Your task to perform on an android device: allow cookies in the chrome app Image 0: 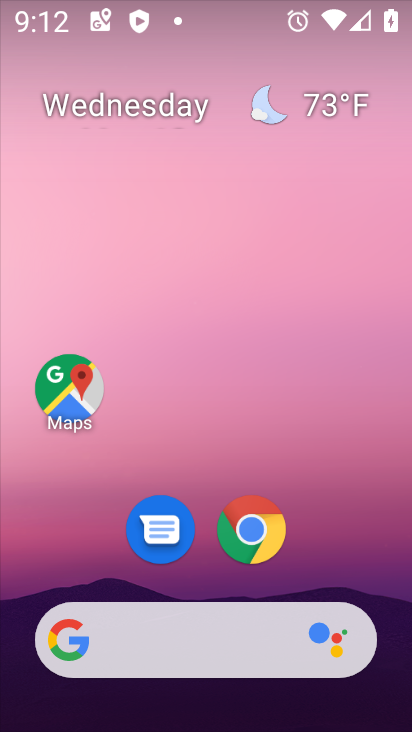
Step 0: drag from (374, 573) to (344, 203)
Your task to perform on an android device: allow cookies in the chrome app Image 1: 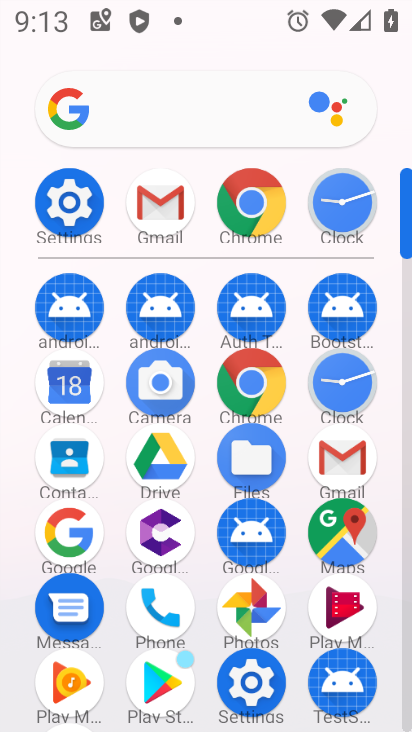
Step 1: click (252, 379)
Your task to perform on an android device: allow cookies in the chrome app Image 2: 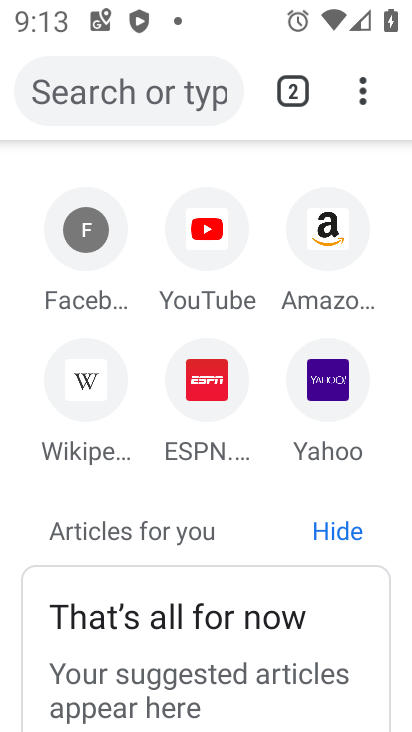
Step 2: click (359, 89)
Your task to perform on an android device: allow cookies in the chrome app Image 3: 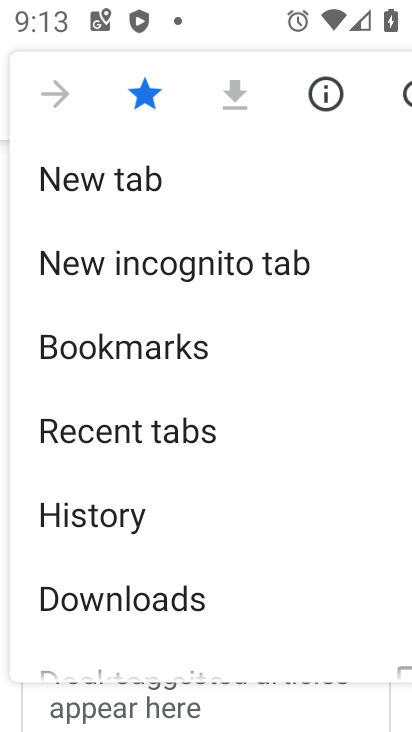
Step 3: drag from (316, 588) to (320, 471)
Your task to perform on an android device: allow cookies in the chrome app Image 4: 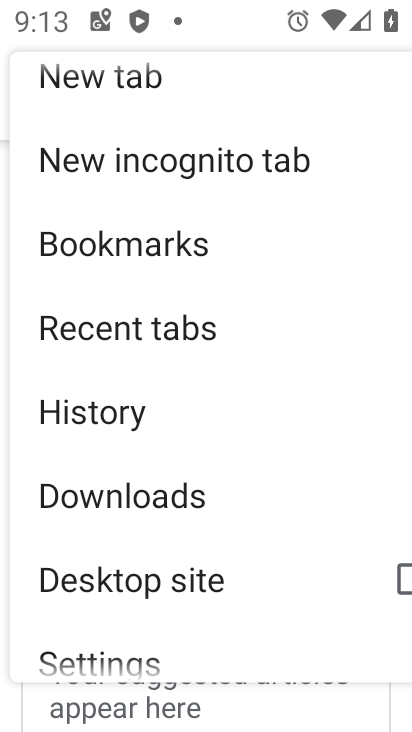
Step 4: drag from (313, 610) to (311, 499)
Your task to perform on an android device: allow cookies in the chrome app Image 5: 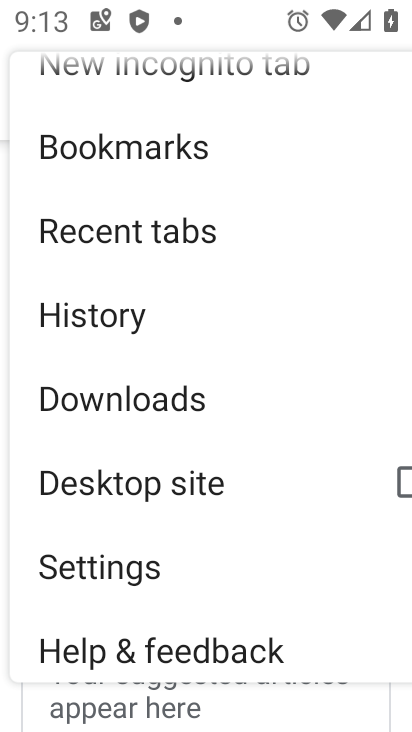
Step 5: drag from (303, 616) to (303, 510)
Your task to perform on an android device: allow cookies in the chrome app Image 6: 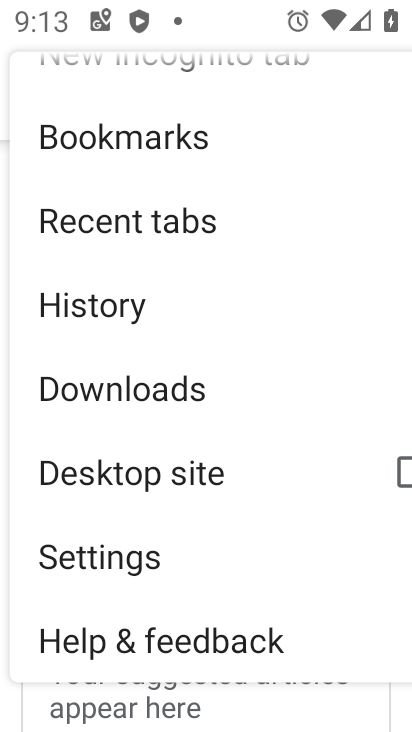
Step 6: drag from (318, 626) to (306, 517)
Your task to perform on an android device: allow cookies in the chrome app Image 7: 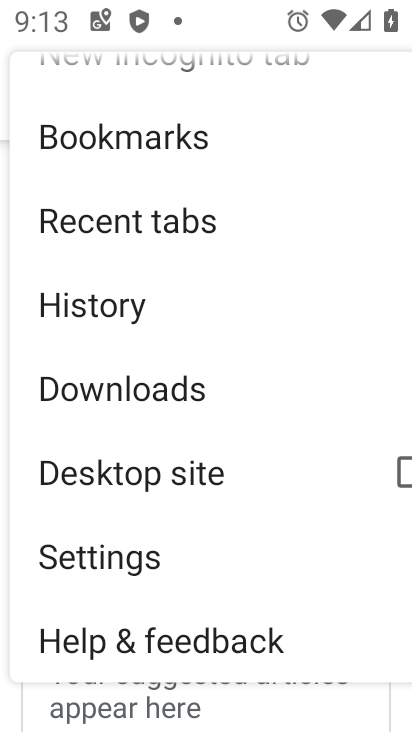
Step 7: drag from (308, 400) to (317, 532)
Your task to perform on an android device: allow cookies in the chrome app Image 8: 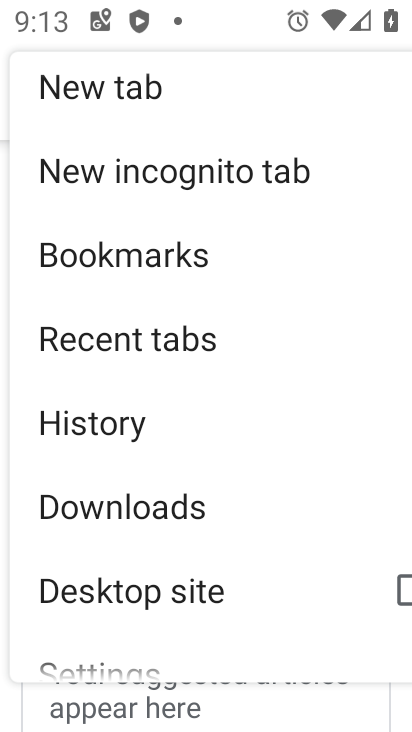
Step 8: drag from (299, 304) to (320, 475)
Your task to perform on an android device: allow cookies in the chrome app Image 9: 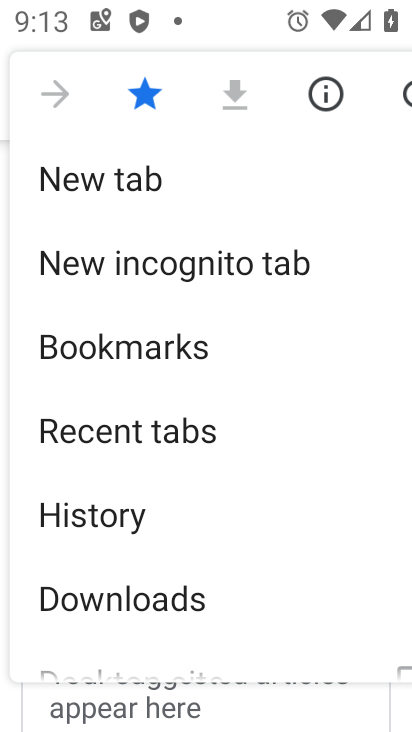
Step 9: drag from (331, 317) to (339, 462)
Your task to perform on an android device: allow cookies in the chrome app Image 10: 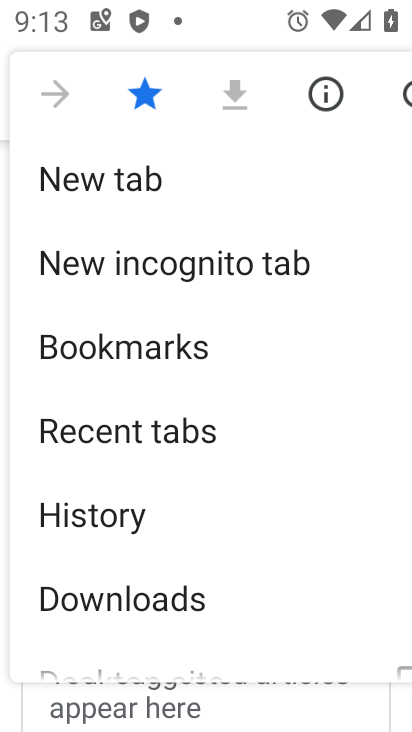
Step 10: drag from (316, 576) to (311, 417)
Your task to perform on an android device: allow cookies in the chrome app Image 11: 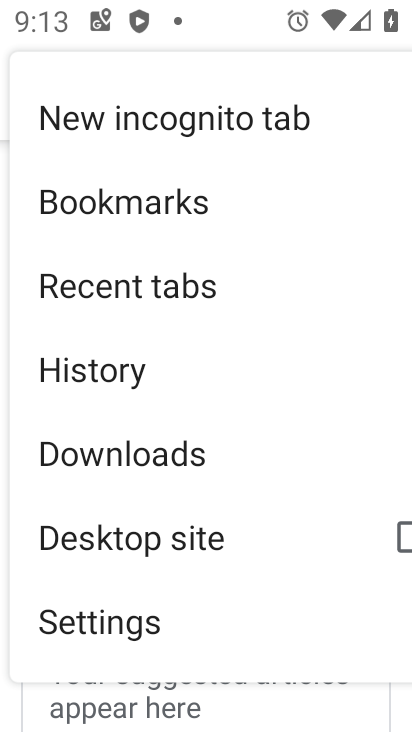
Step 11: drag from (308, 628) to (299, 471)
Your task to perform on an android device: allow cookies in the chrome app Image 12: 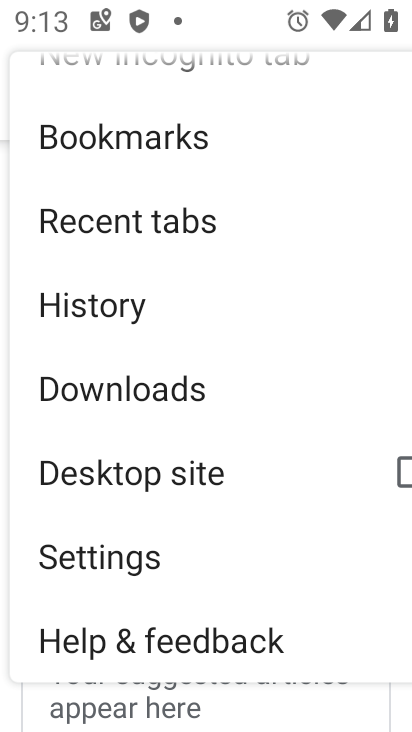
Step 12: click (132, 584)
Your task to perform on an android device: allow cookies in the chrome app Image 13: 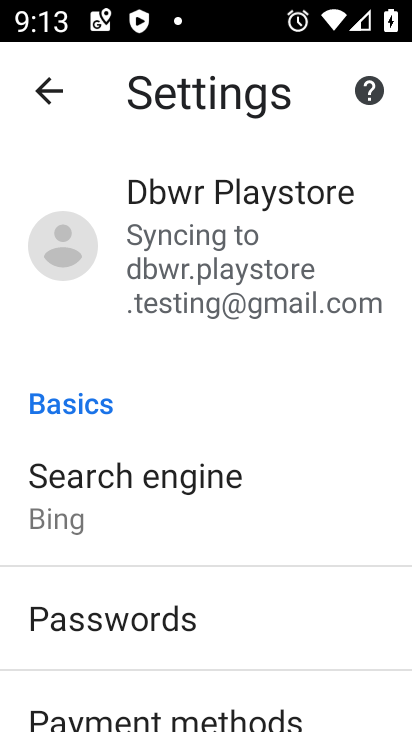
Step 13: drag from (307, 664) to (300, 487)
Your task to perform on an android device: allow cookies in the chrome app Image 14: 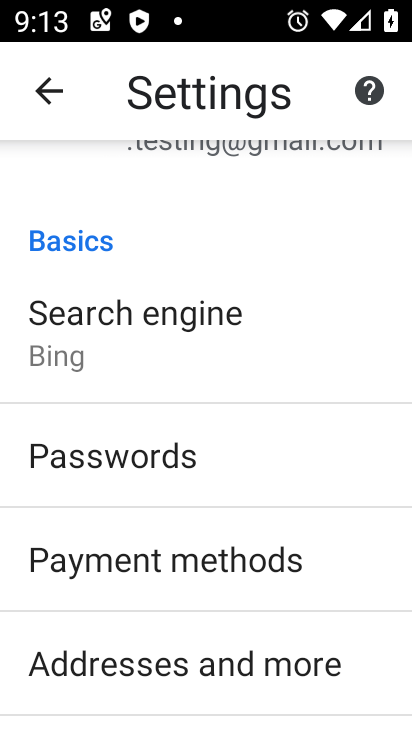
Step 14: drag from (346, 699) to (329, 506)
Your task to perform on an android device: allow cookies in the chrome app Image 15: 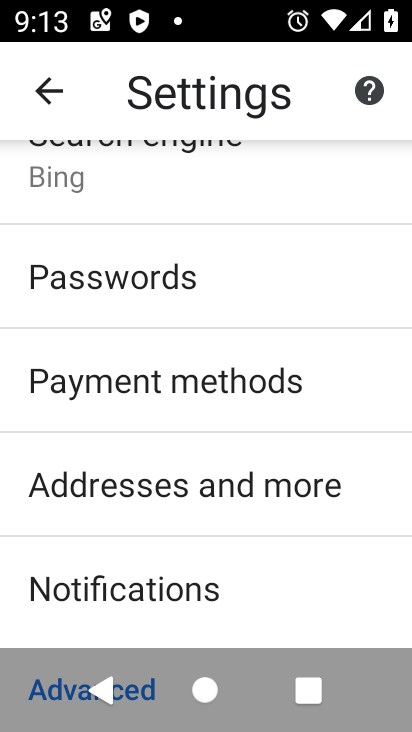
Step 15: drag from (342, 623) to (336, 485)
Your task to perform on an android device: allow cookies in the chrome app Image 16: 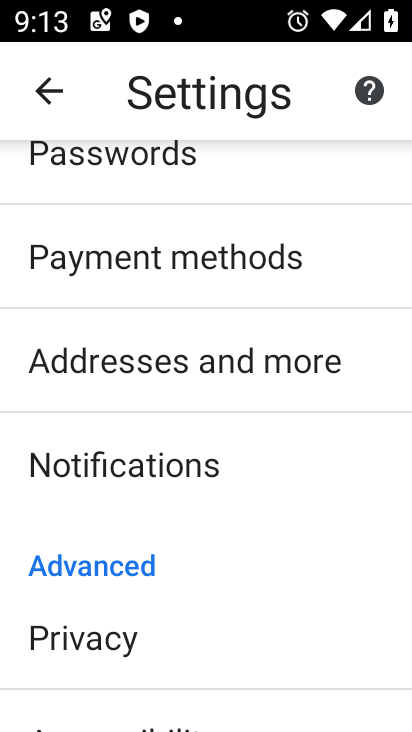
Step 16: drag from (338, 686) to (343, 494)
Your task to perform on an android device: allow cookies in the chrome app Image 17: 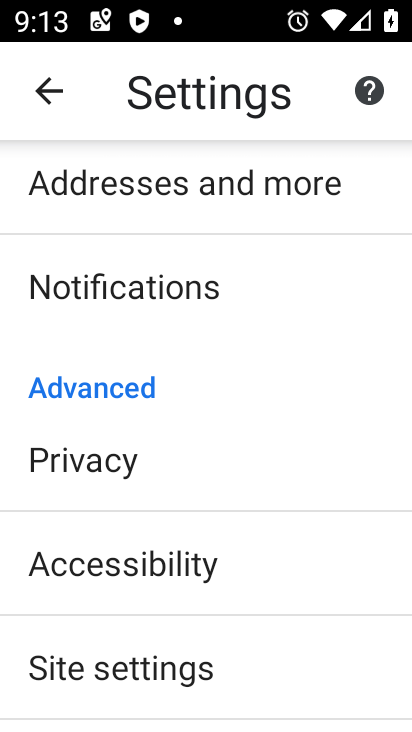
Step 17: drag from (334, 684) to (343, 548)
Your task to perform on an android device: allow cookies in the chrome app Image 18: 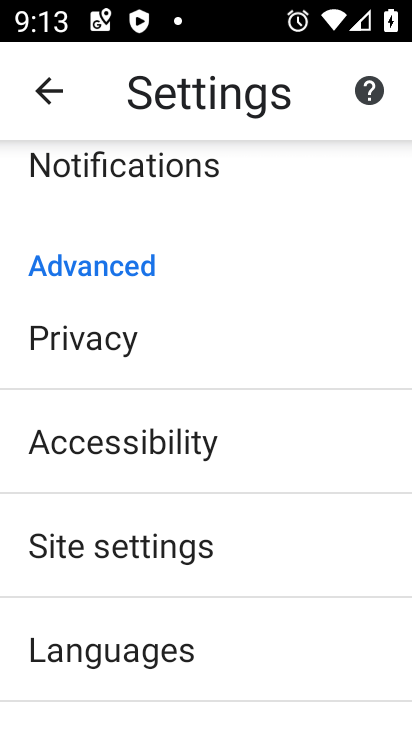
Step 18: drag from (329, 684) to (323, 529)
Your task to perform on an android device: allow cookies in the chrome app Image 19: 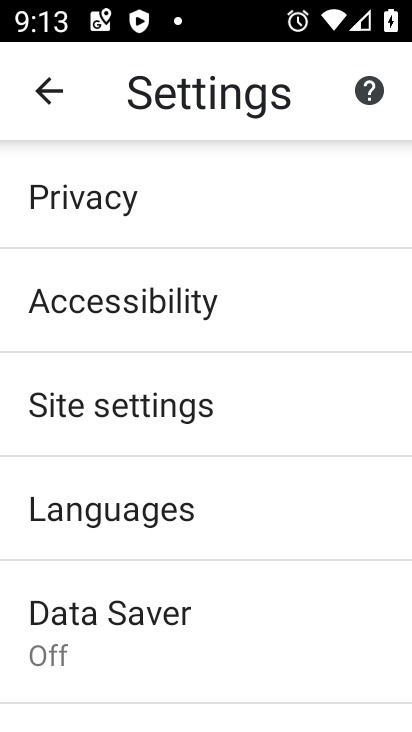
Step 19: drag from (323, 661) to (304, 556)
Your task to perform on an android device: allow cookies in the chrome app Image 20: 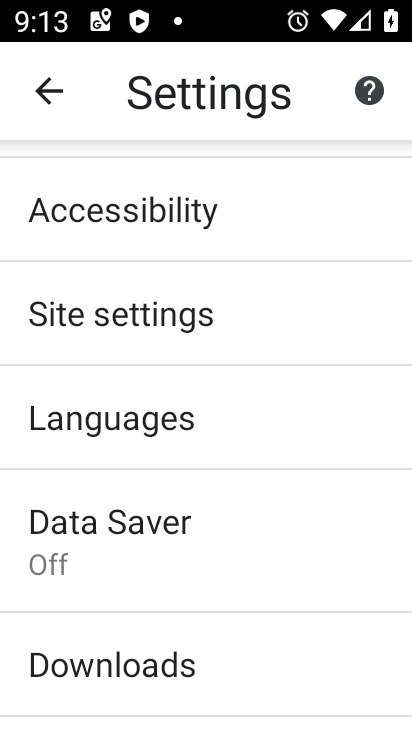
Step 20: drag from (286, 404) to (306, 555)
Your task to perform on an android device: allow cookies in the chrome app Image 21: 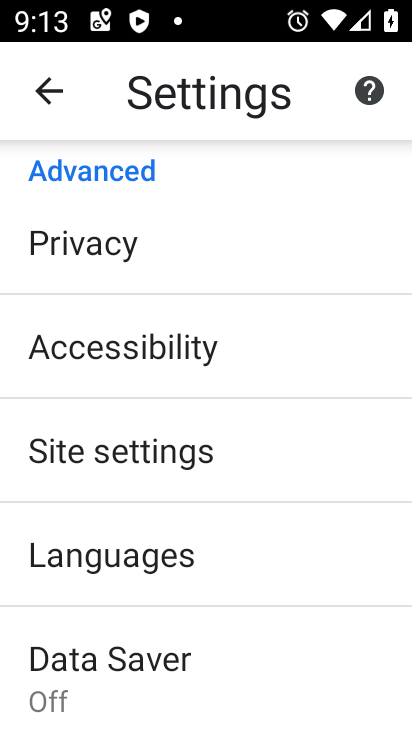
Step 21: drag from (285, 407) to (299, 543)
Your task to perform on an android device: allow cookies in the chrome app Image 22: 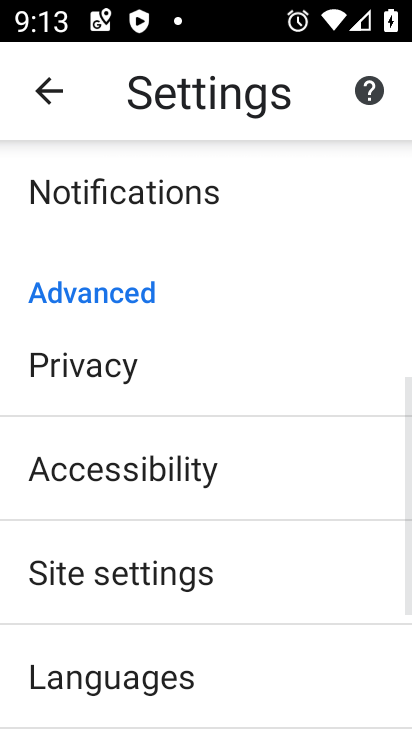
Step 22: drag from (284, 377) to (288, 507)
Your task to perform on an android device: allow cookies in the chrome app Image 23: 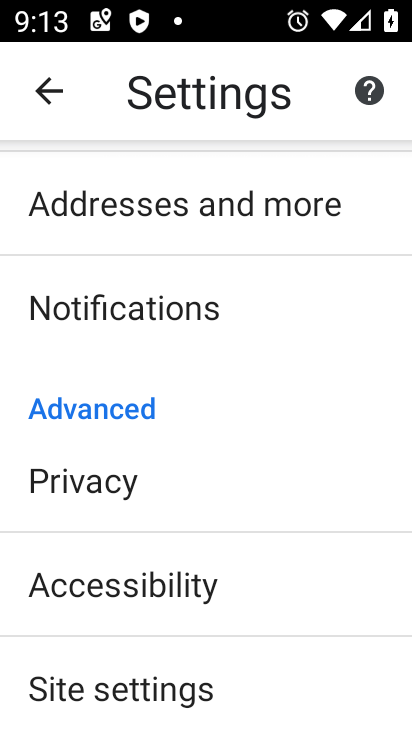
Step 23: drag from (296, 628) to (291, 472)
Your task to perform on an android device: allow cookies in the chrome app Image 24: 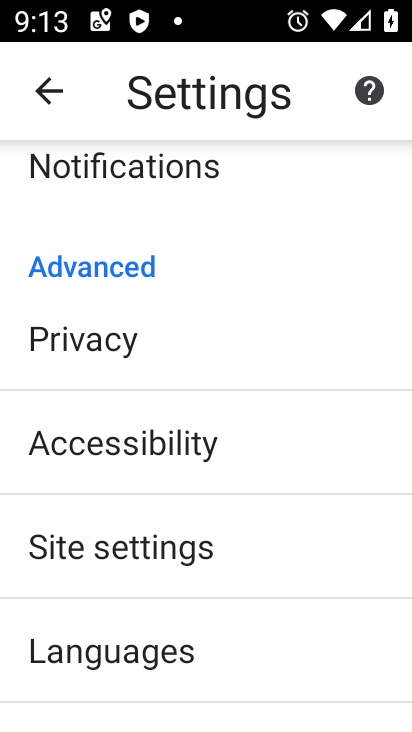
Step 24: click (247, 566)
Your task to perform on an android device: allow cookies in the chrome app Image 25: 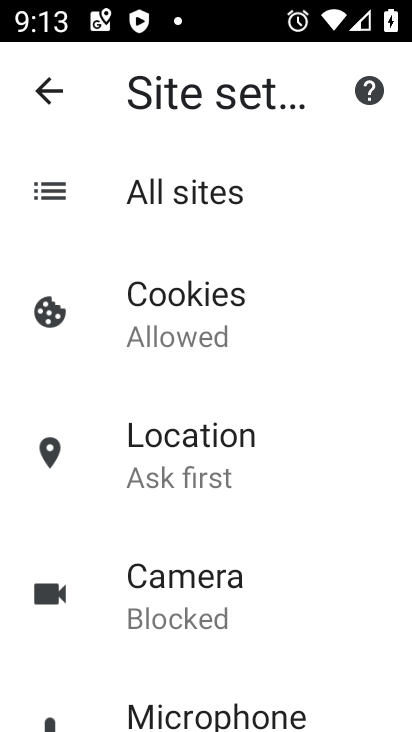
Step 25: drag from (325, 652) to (311, 518)
Your task to perform on an android device: allow cookies in the chrome app Image 26: 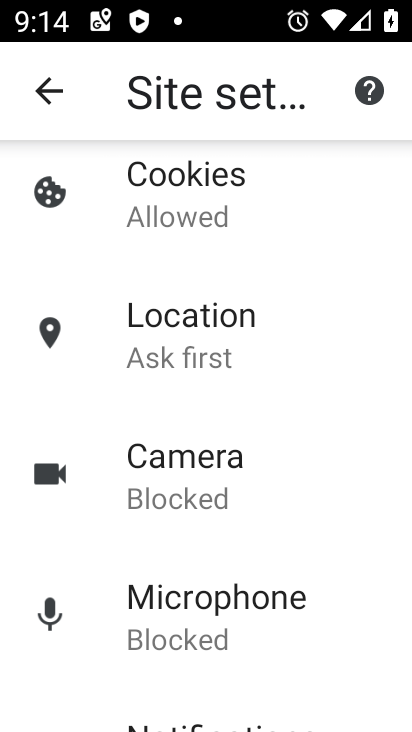
Step 26: drag from (330, 672) to (337, 527)
Your task to perform on an android device: allow cookies in the chrome app Image 27: 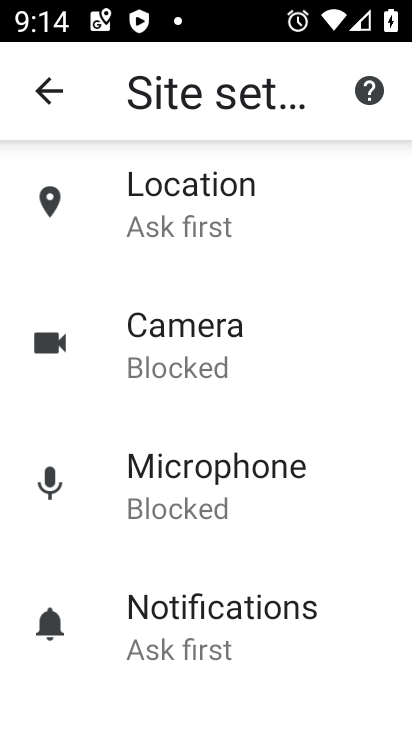
Step 27: drag from (363, 679) to (346, 560)
Your task to perform on an android device: allow cookies in the chrome app Image 28: 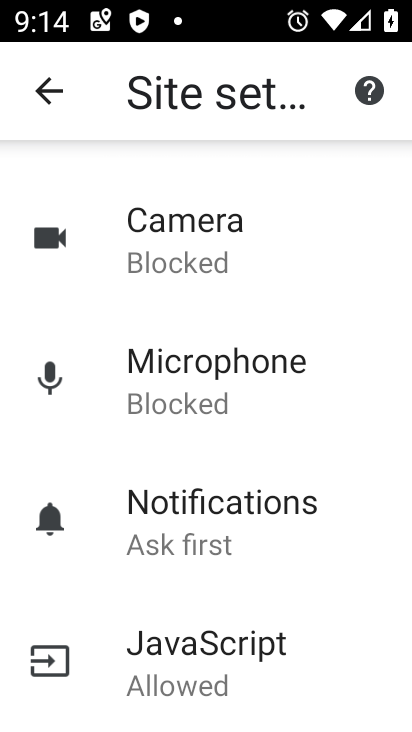
Step 28: drag from (356, 683) to (338, 565)
Your task to perform on an android device: allow cookies in the chrome app Image 29: 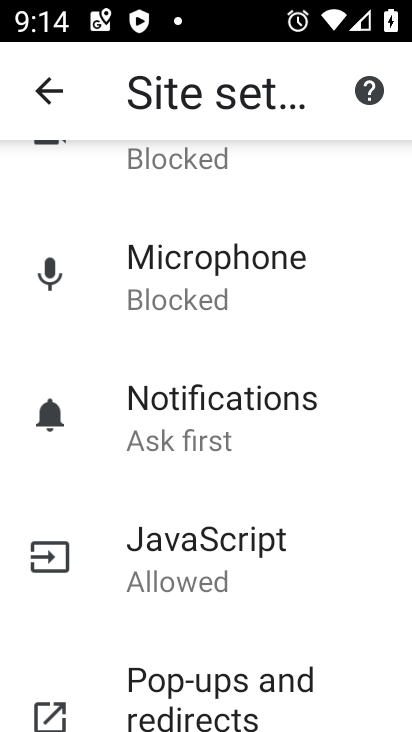
Step 29: drag from (357, 669) to (357, 584)
Your task to perform on an android device: allow cookies in the chrome app Image 30: 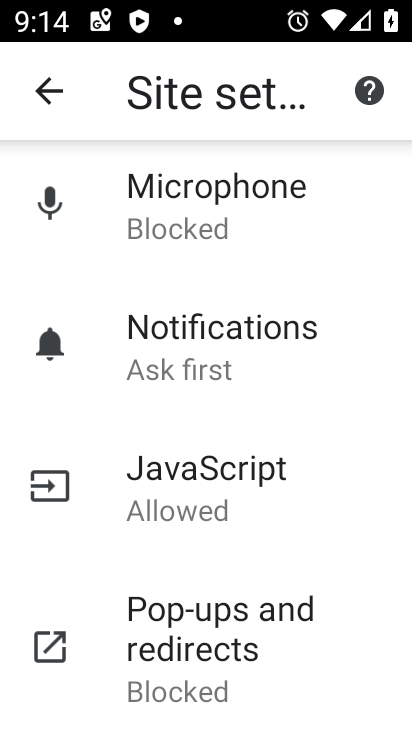
Step 30: drag from (371, 658) to (371, 532)
Your task to perform on an android device: allow cookies in the chrome app Image 31: 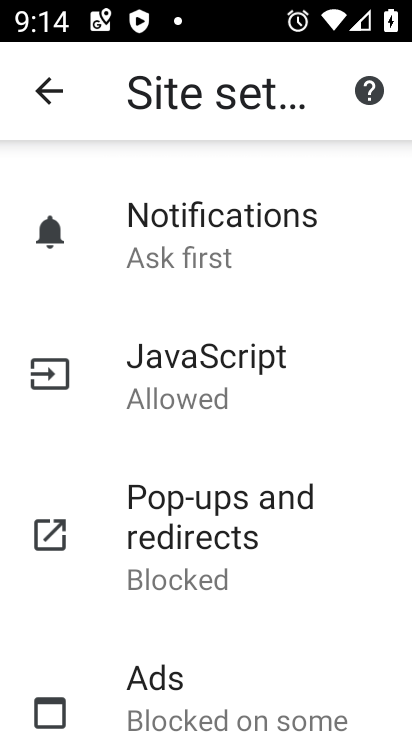
Step 31: drag from (347, 655) to (339, 544)
Your task to perform on an android device: allow cookies in the chrome app Image 32: 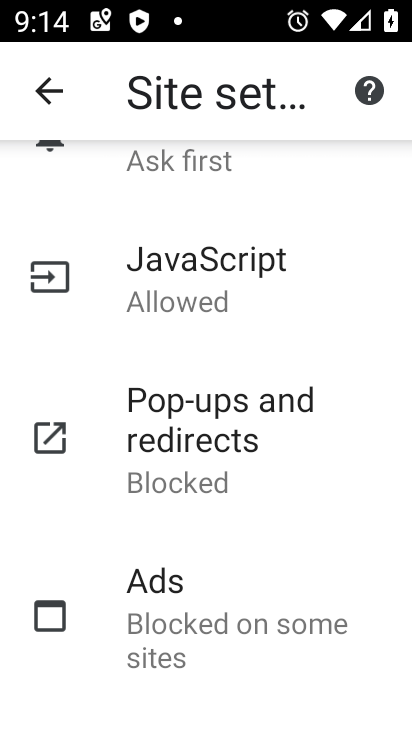
Step 32: drag from (348, 420) to (361, 604)
Your task to perform on an android device: allow cookies in the chrome app Image 33: 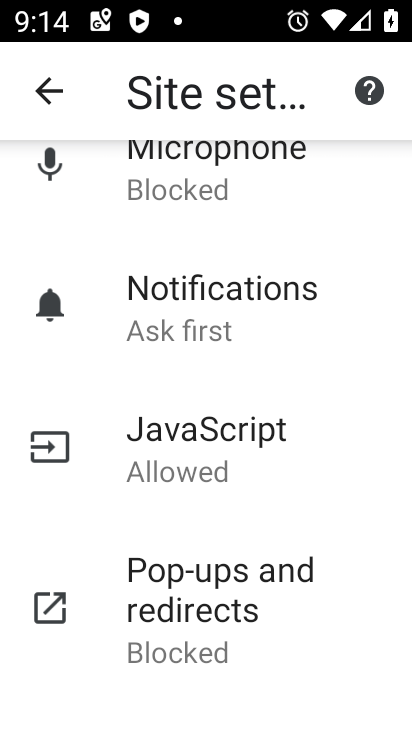
Step 33: drag from (335, 392) to (356, 551)
Your task to perform on an android device: allow cookies in the chrome app Image 34: 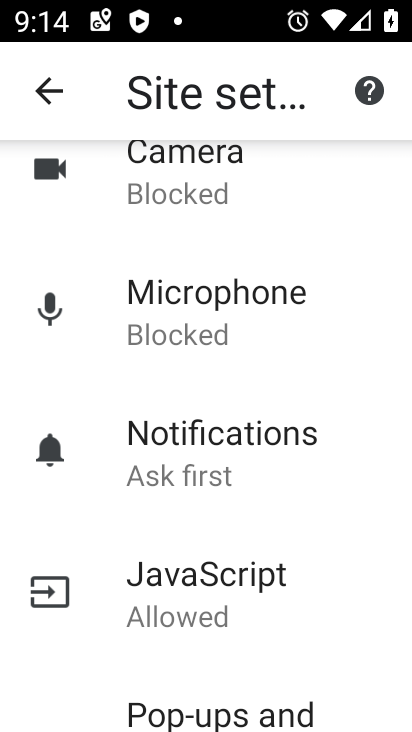
Step 34: drag from (333, 411) to (344, 525)
Your task to perform on an android device: allow cookies in the chrome app Image 35: 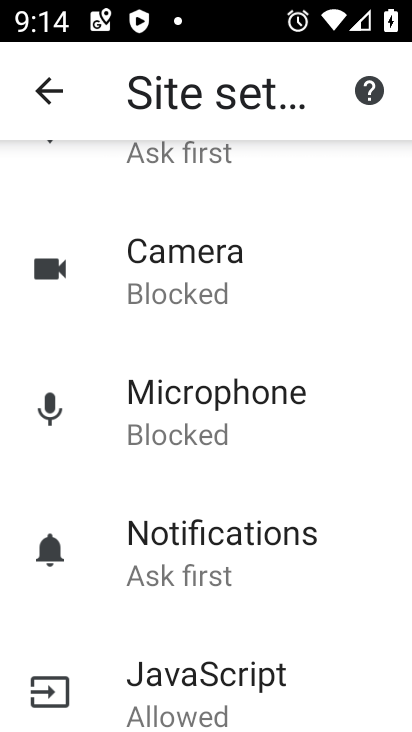
Step 35: drag from (328, 381) to (346, 507)
Your task to perform on an android device: allow cookies in the chrome app Image 36: 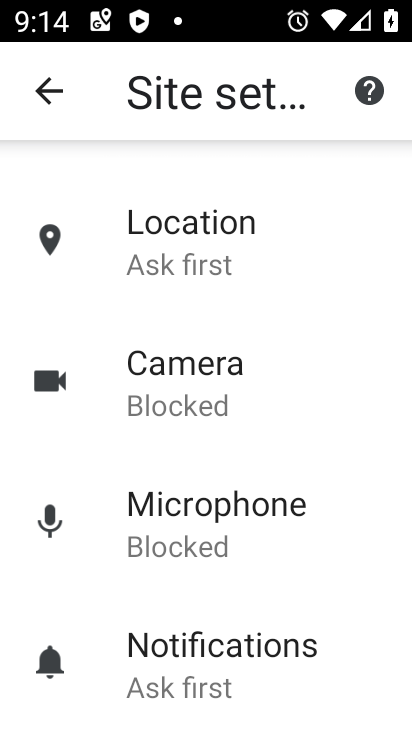
Step 36: drag from (329, 394) to (330, 522)
Your task to perform on an android device: allow cookies in the chrome app Image 37: 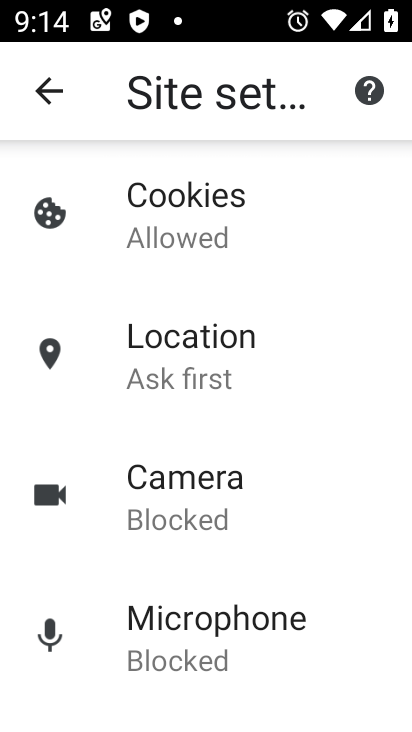
Step 37: drag from (318, 377) to (331, 519)
Your task to perform on an android device: allow cookies in the chrome app Image 38: 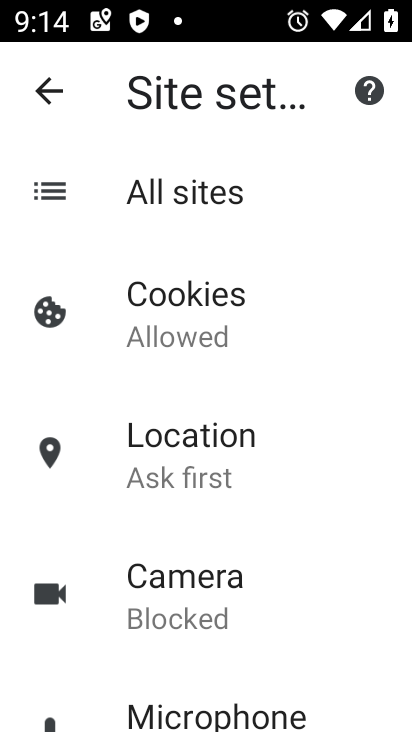
Step 38: drag from (316, 383) to (321, 520)
Your task to perform on an android device: allow cookies in the chrome app Image 39: 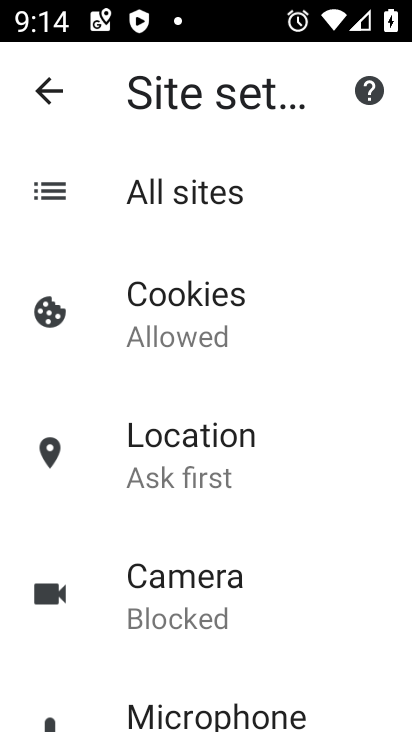
Step 39: drag from (296, 364) to (297, 496)
Your task to perform on an android device: allow cookies in the chrome app Image 40: 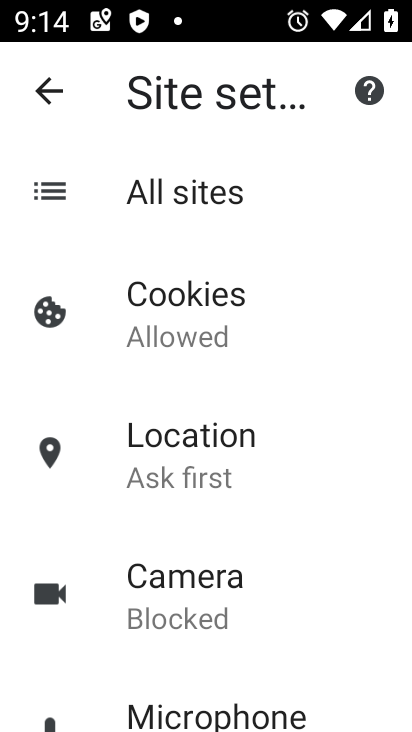
Step 40: drag from (317, 294) to (324, 429)
Your task to perform on an android device: allow cookies in the chrome app Image 41: 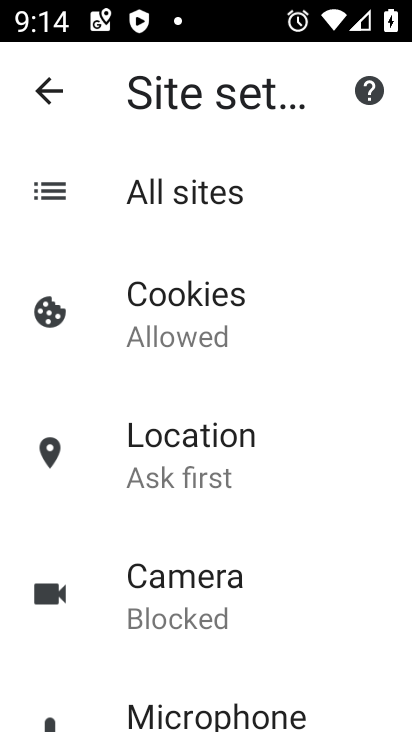
Step 41: click (210, 325)
Your task to perform on an android device: allow cookies in the chrome app Image 42: 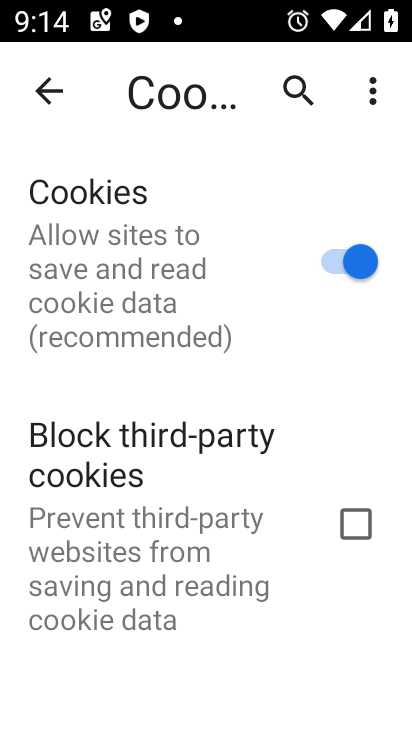
Step 42: task complete